Your task to perform on an android device: open app "Venmo" Image 0: 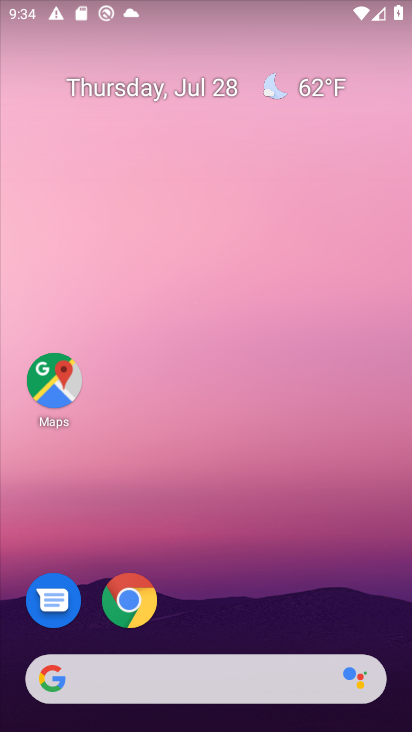
Step 0: drag from (236, 637) to (246, 10)
Your task to perform on an android device: open app "Venmo" Image 1: 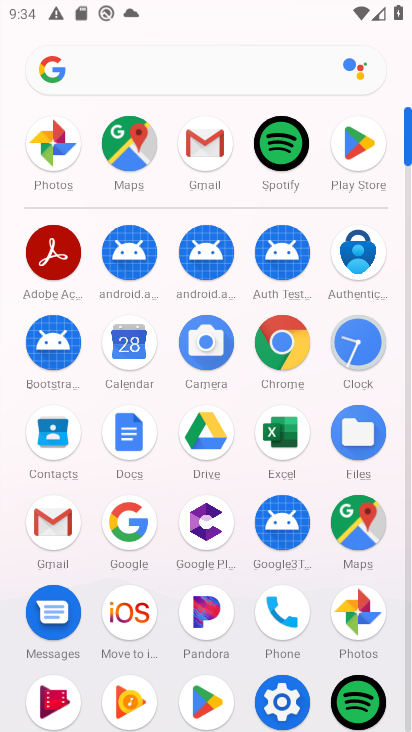
Step 1: click (356, 147)
Your task to perform on an android device: open app "Venmo" Image 2: 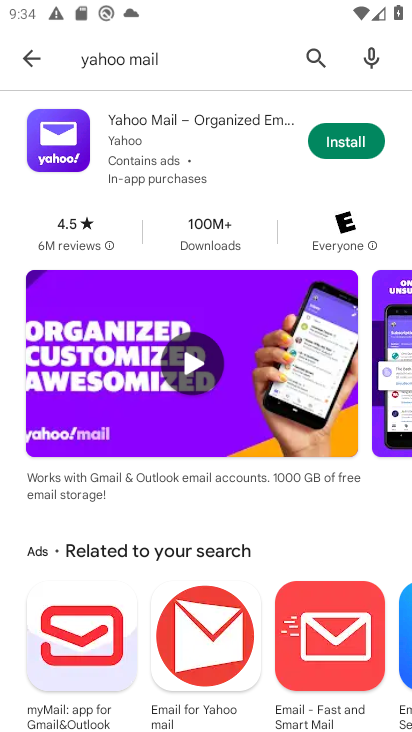
Step 2: click (310, 50)
Your task to perform on an android device: open app "Venmo" Image 3: 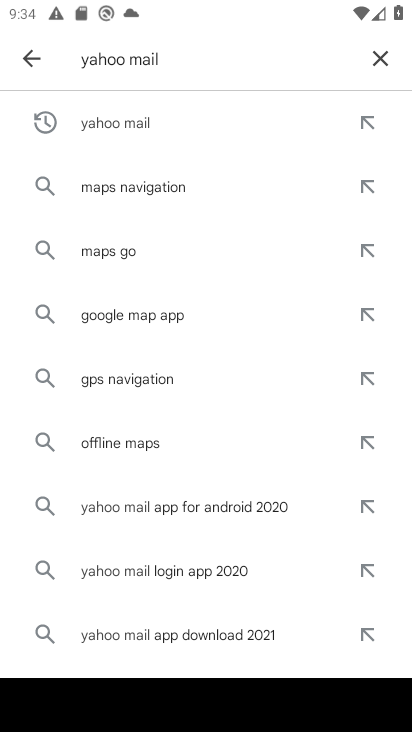
Step 3: click (383, 70)
Your task to perform on an android device: open app "Venmo" Image 4: 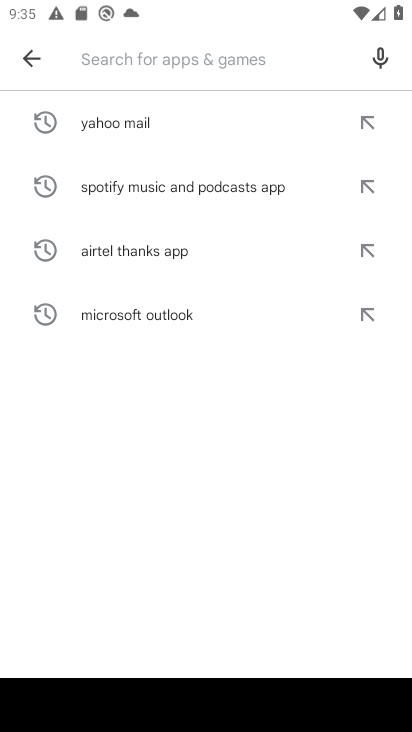
Step 4: click (100, 56)
Your task to perform on an android device: open app "Venmo" Image 5: 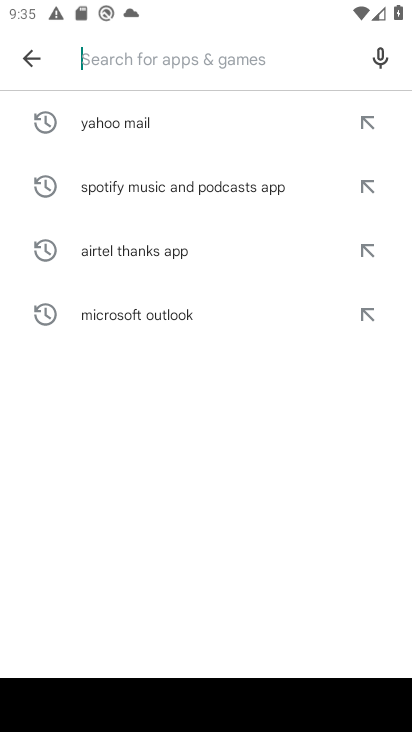
Step 5: type "Venmo"
Your task to perform on an android device: open app "Venmo" Image 6: 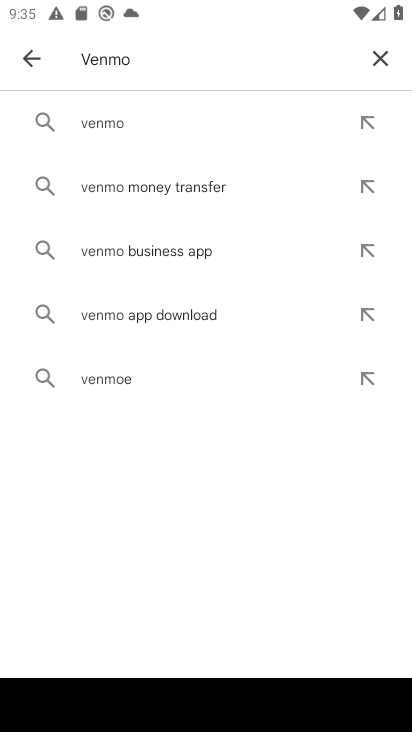
Step 6: click (114, 127)
Your task to perform on an android device: open app "Venmo" Image 7: 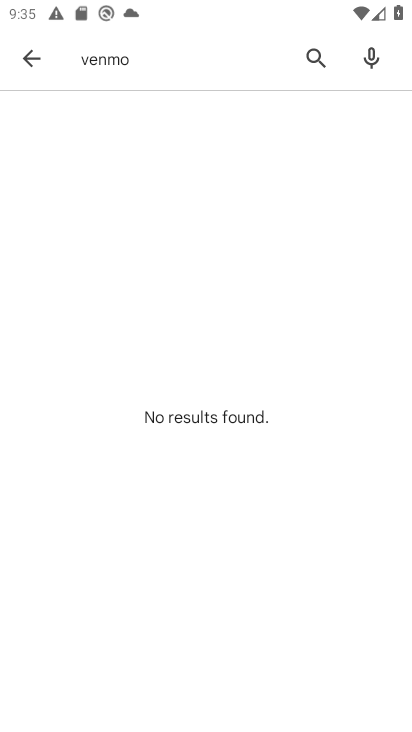
Step 7: task complete